Your task to perform on an android device: uninstall "Google Keep" Image 0: 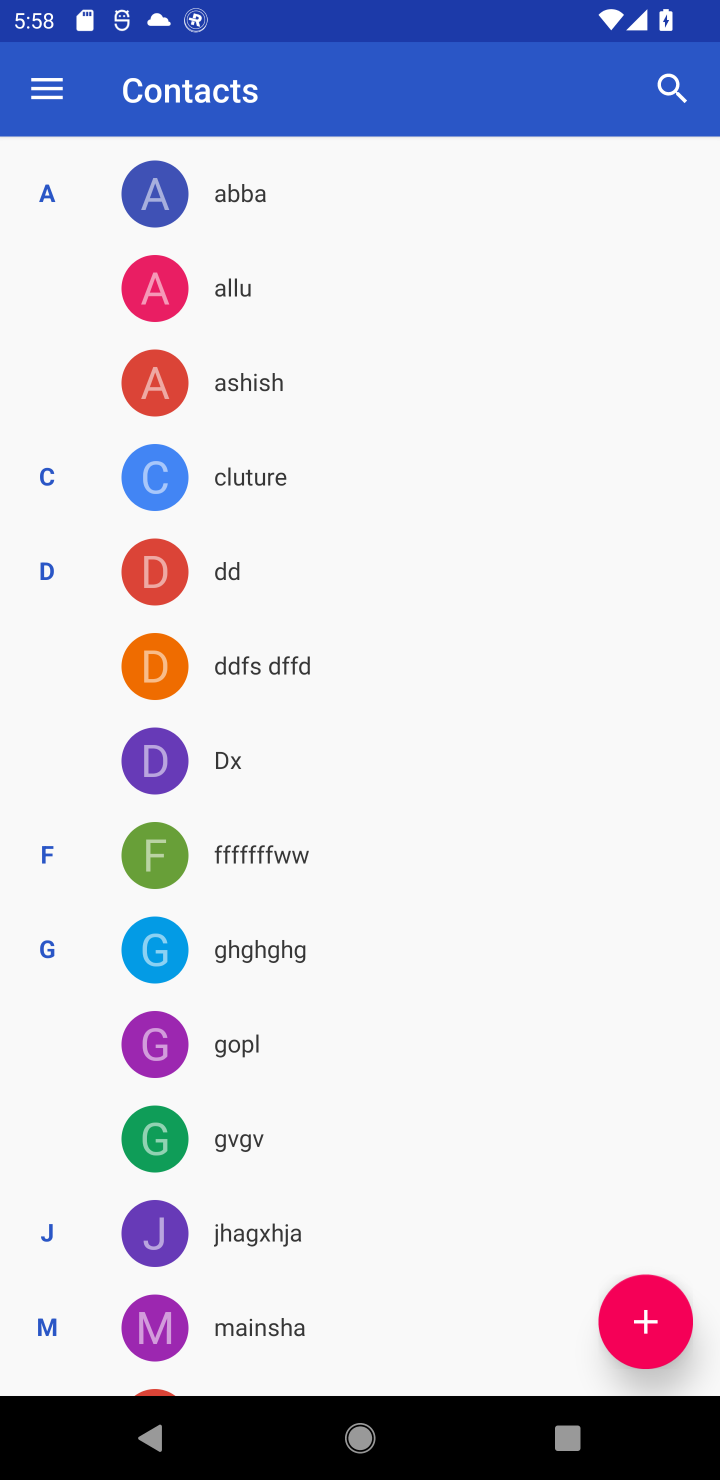
Step 0: task complete